Your task to perform on an android device: turn on the 24-hour format for clock Image 0: 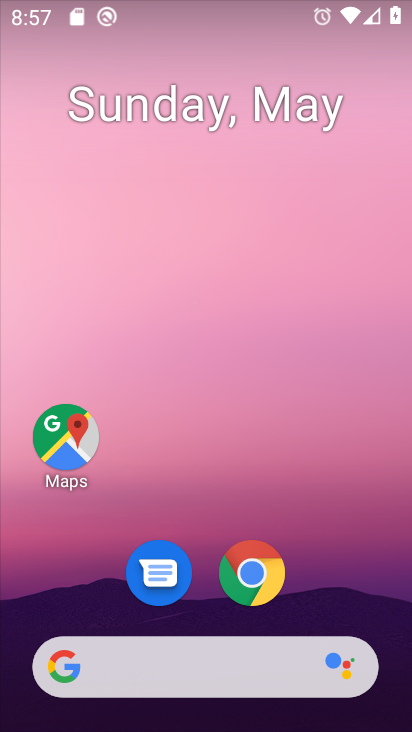
Step 0: drag from (247, 492) to (236, 61)
Your task to perform on an android device: turn on the 24-hour format for clock Image 1: 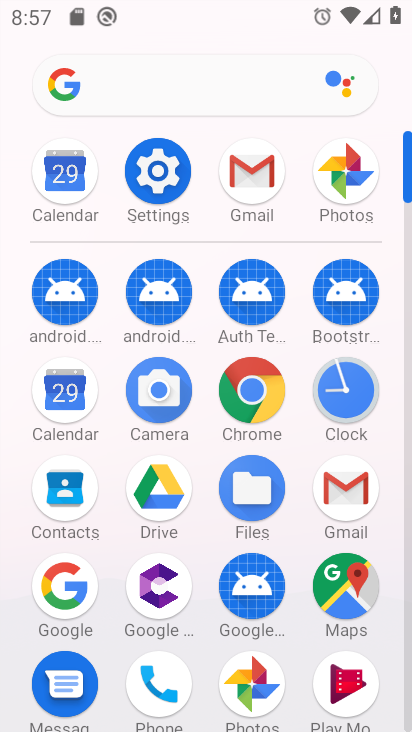
Step 1: click (350, 387)
Your task to perform on an android device: turn on the 24-hour format for clock Image 2: 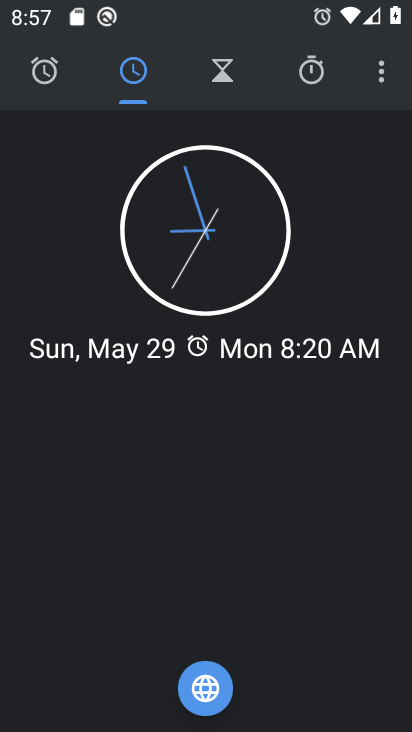
Step 2: click (381, 84)
Your task to perform on an android device: turn on the 24-hour format for clock Image 3: 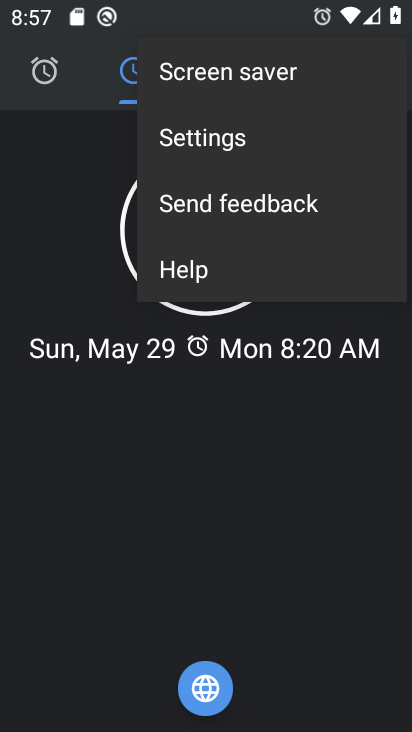
Step 3: click (318, 141)
Your task to perform on an android device: turn on the 24-hour format for clock Image 4: 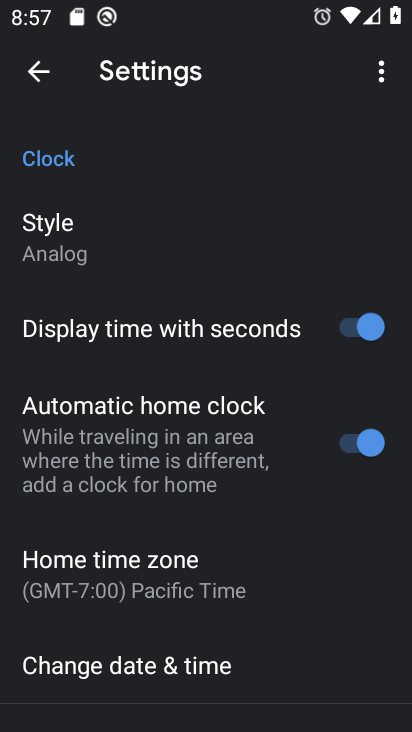
Step 4: click (227, 668)
Your task to perform on an android device: turn on the 24-hour format for clock Image 5: 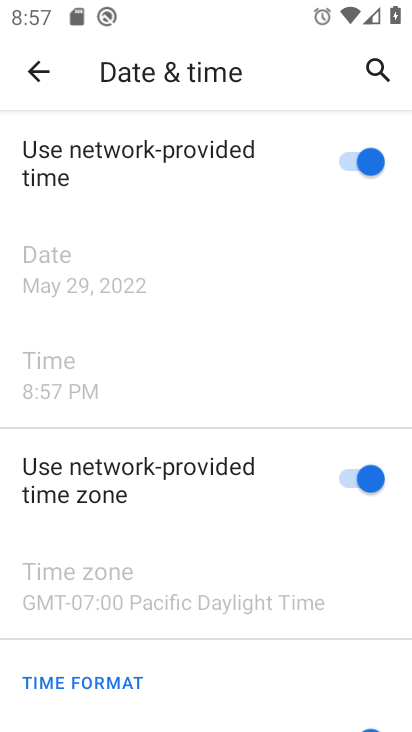
Step 5: drag from (261, 546) to (290, 191)
Your task to perform on an android device: turn on the 24-hour format for clock Image 6: 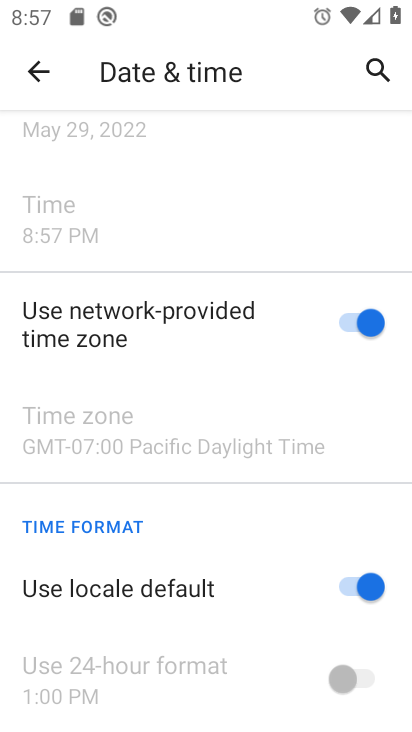
Step 6: click (352, 588)
Your task to perform on an android device: turn on the 24-hour format for clock Image 7: 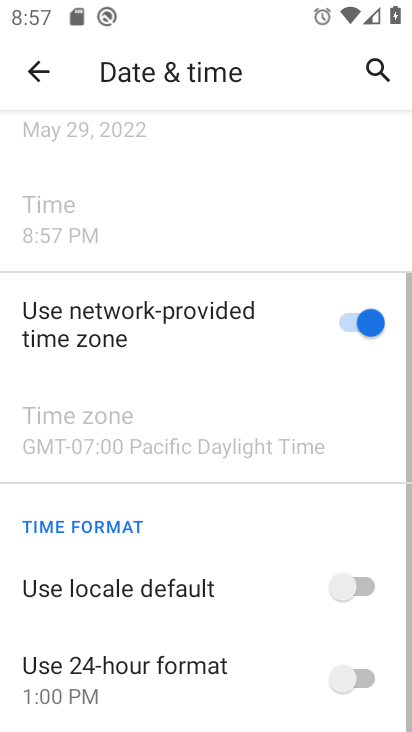
Step 7: click (361, 671)
Your task to perform on an android device: turn on the 24-hour format for clock Image 8: 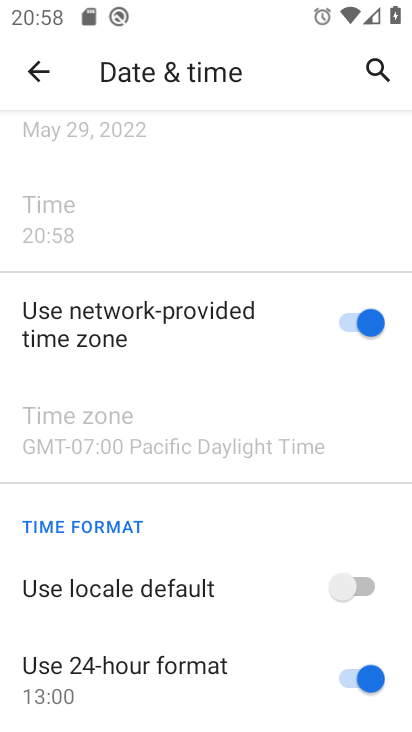
Step 8: task complete